Your task to perform on an android device: open the mobile data screen to see how much data has been used Image 0: 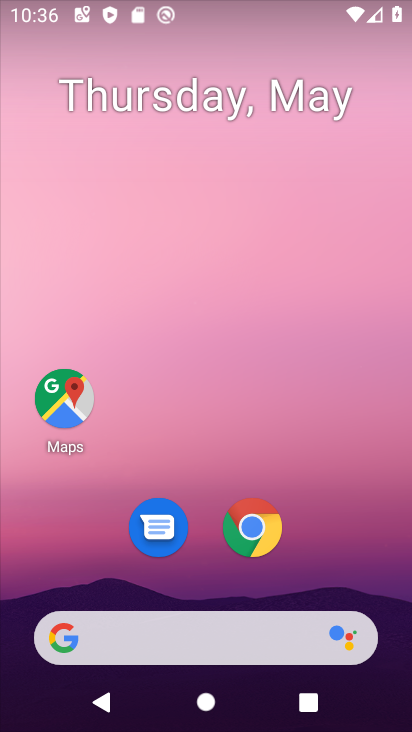
Step 0: drag from (341, 554) to (307, 141)
Your task to perform on an android device: open the mobile data screen to see how much data has been used Image 1: 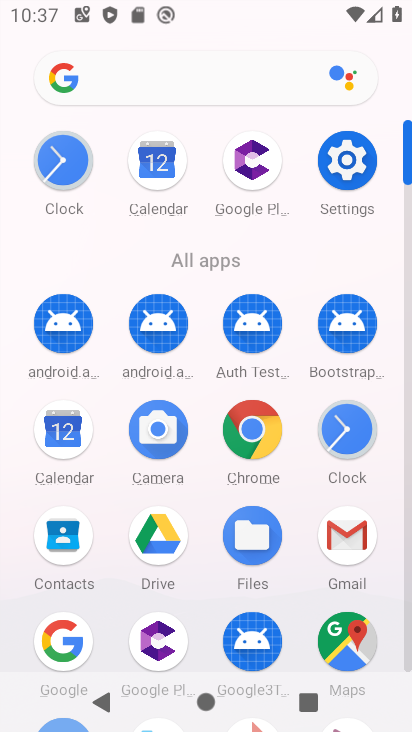
Step 1: click (353, 174)
Your task to perform on an android device: open the mobile data screen to see how much data has been used Image 2: 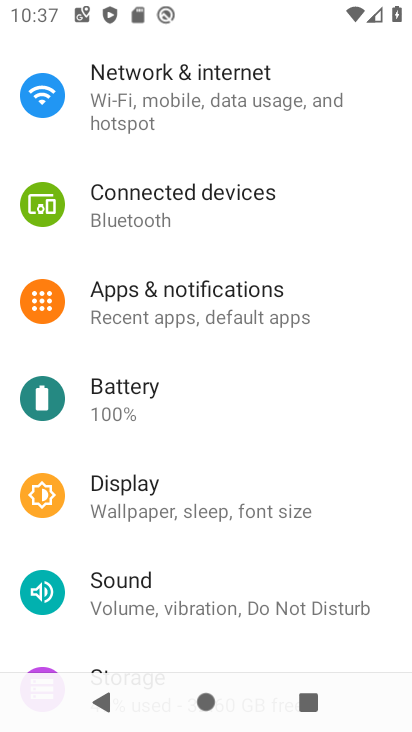
Step 2: click (231, 105)
Your task to perform on an android device: open the mobile data screen to see how much data has been used Image 3: 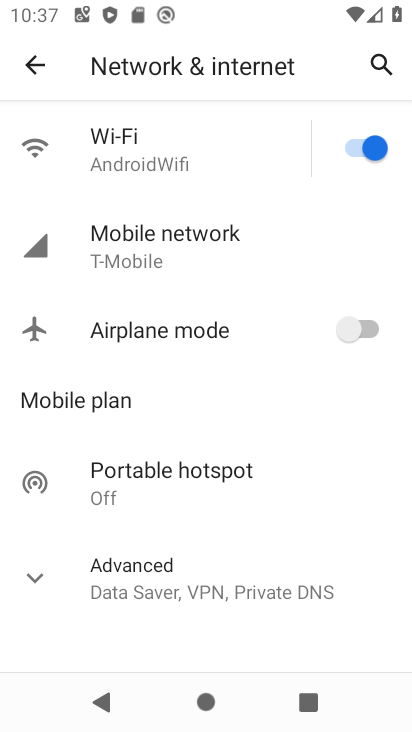
Step 3: click (212, 243)
Your task to perform on an android device: open the mobile data screen to see how much data has been used Image 4: 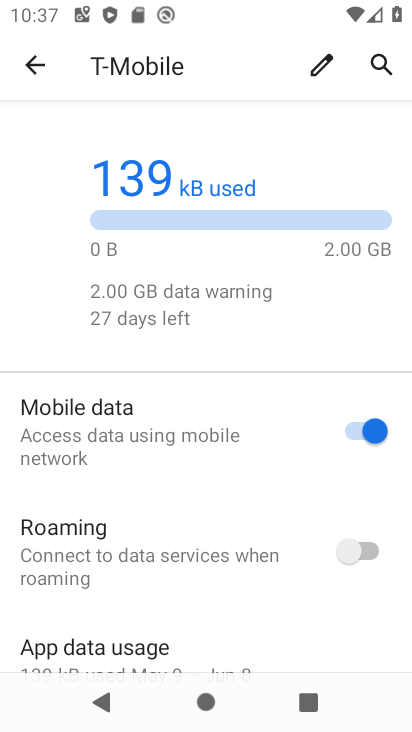
Step 4: task complete